Your task to perform on an android device: Open the calendar app, open the side menu, and click the "Day" option Image 0: 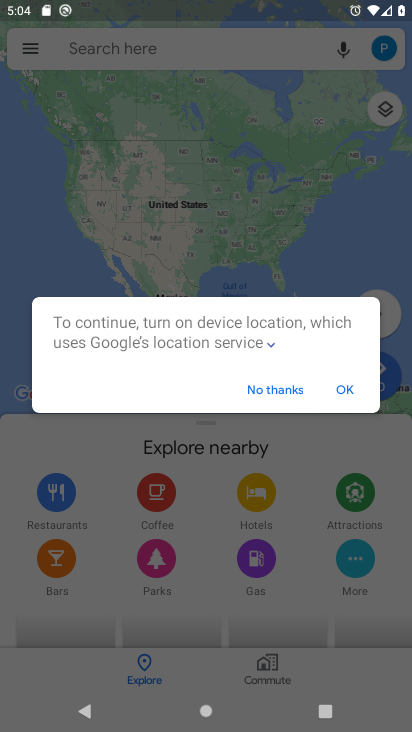
Step 0: click (348, 393)
Your task to perform on an android device: Open the calendar app, open the side menu, and click the "Day" option Image 1: 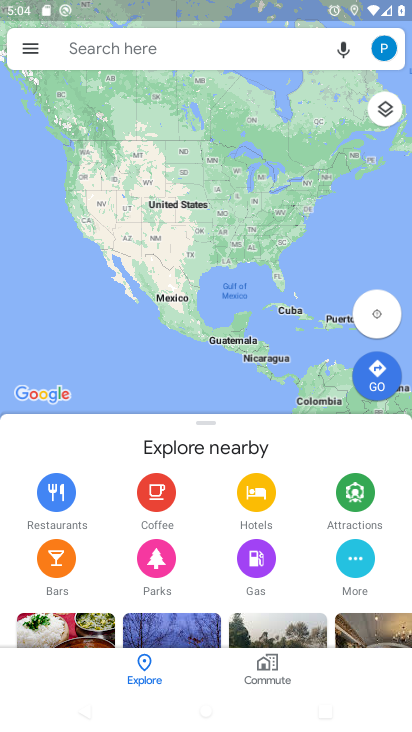
Step 1: press back button
Your task to perform on an android device: Open the calendar app, open the side menu, and click the "Day" option Image 2: 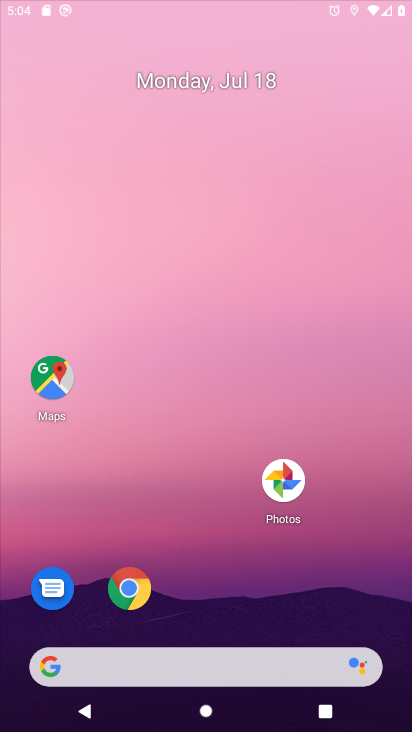
Step 2: press home button
Your task to perform on an android device: Open the calendar app, open the side menu, and click the "Day" option Image 3: 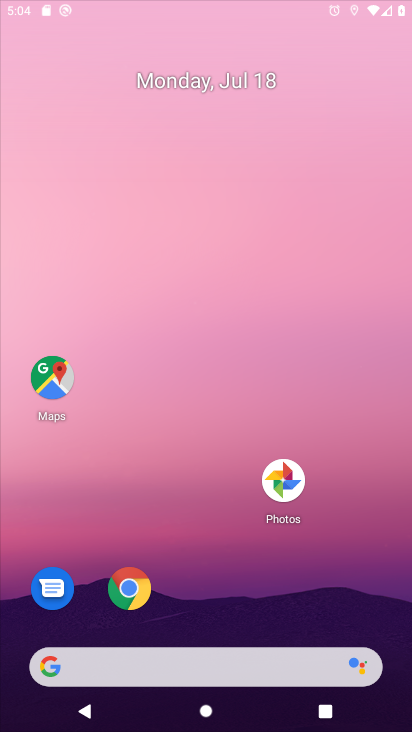
Step 3: click (203, 195)
Your task to perform on an android device: Open the calendar app, open the side menu, and click the "Day" option Image 4: 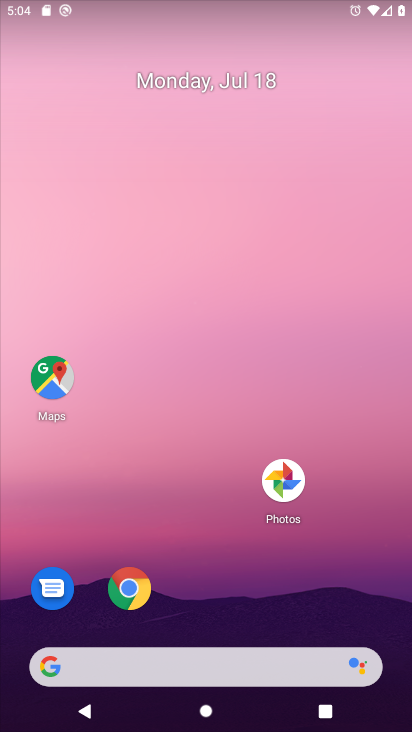
Step 4: drag from (283, 672) to (241, 231)
Your task to perform on an android device: Open the calendar app, open the side menu, and click the "Day" option Image 5: 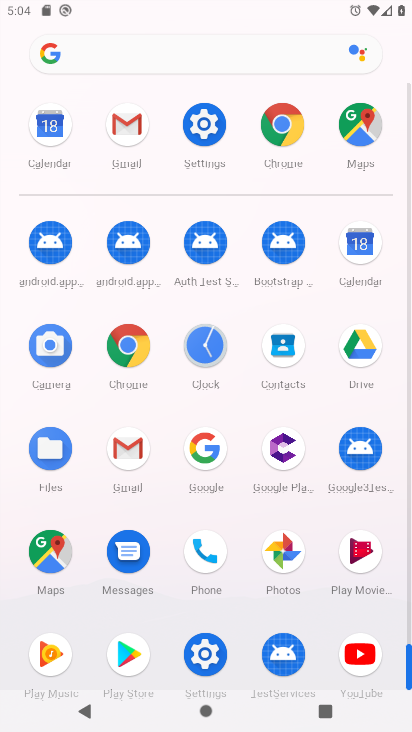
Step 5: click (356, 253)
Your task to perform on an android device: Open the calendar app, open the side menu, and click the "Day" option Image 6: 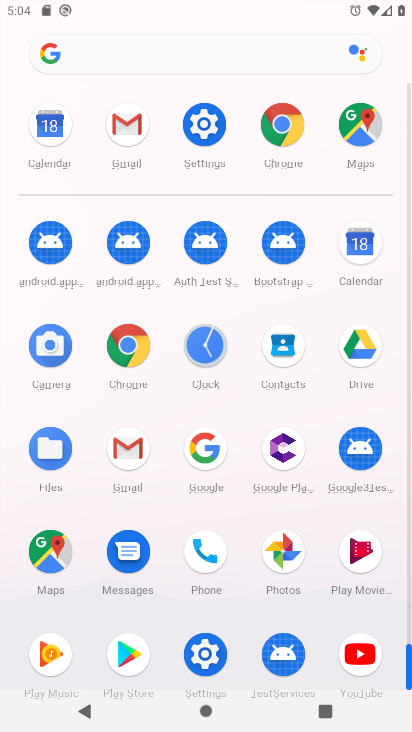
Step 6: click (356, 253)
Your task to perform on an android device: Open the calendar app, open the side menu, and click the "Day" option Image 7: 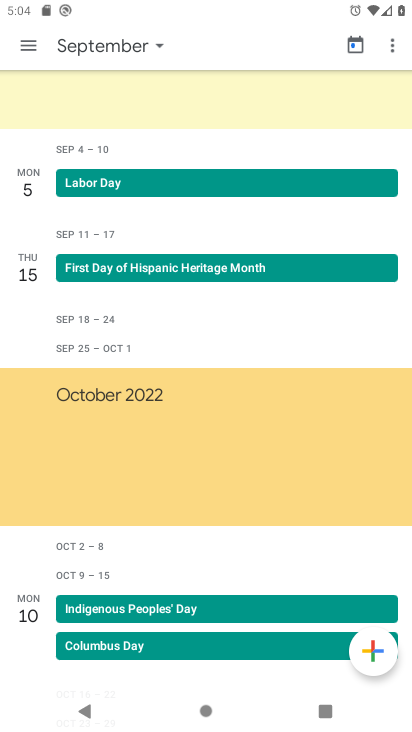
Step 7: click (26, 44)
Your task to perform on an android device: Open the calendar app, open the side menu, and click the "Day" option Image 8: 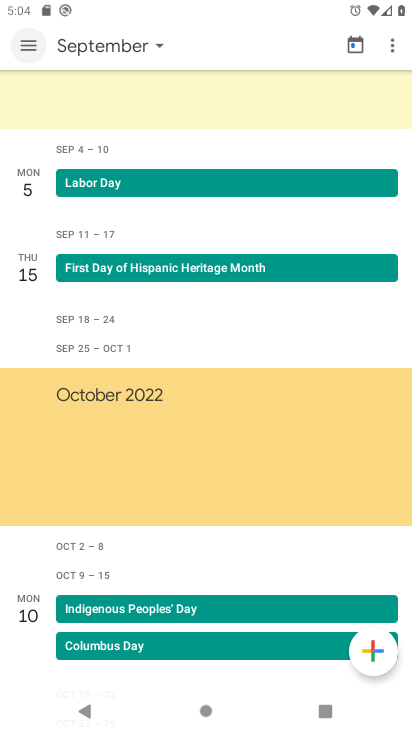
Step 8: drag from (26, 44) to (385, 277)
Your task to perform on an android device: Open the calendar app, open the side menu, and click the "Day" option Image 9: 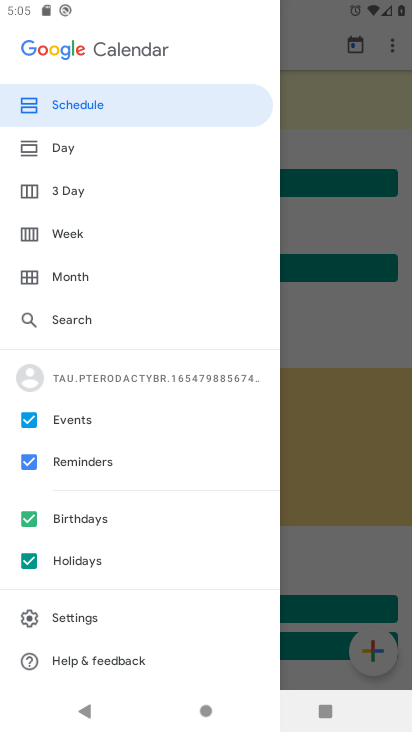
Step 9: click (74, 141)
Your task to perform on an android device: Open the calendar app, open the side menu, and click the "Day" option Image 10: 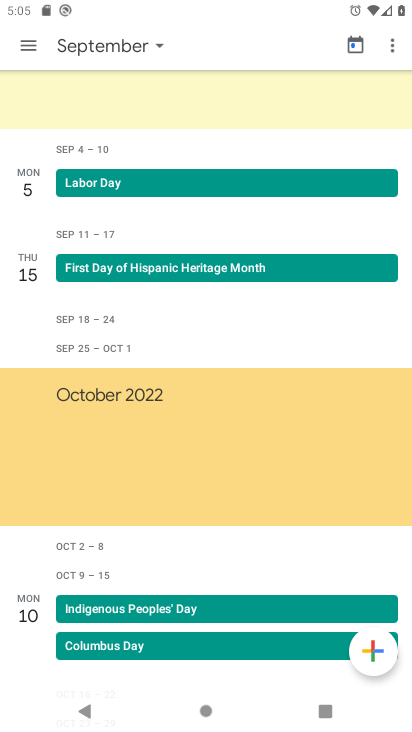
Step 10: click (65, 148)
Your task to perform on an android device: Open the calendar app, open the side menu, and click the "Day" option Image 11: 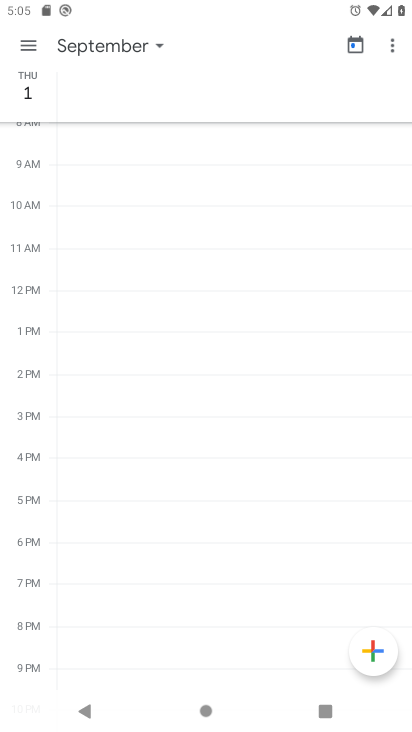
Step 11: task complete